Your task to perform on an android device: make emails show in primary in the gmail app Image 0: 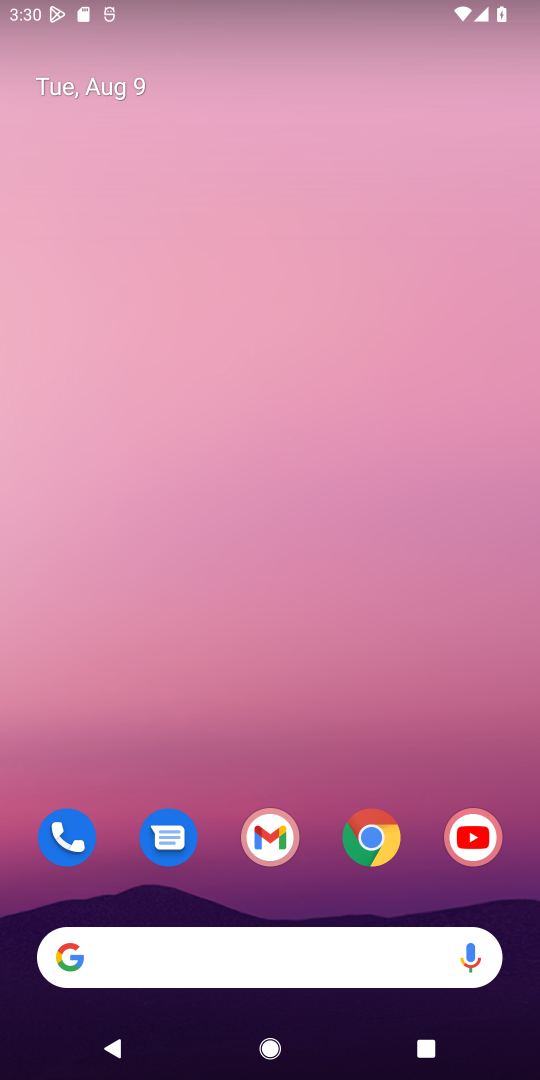
Step 0: drag from (178, 789) to (187, 272)
Your task to perform on an android device: make emails show in primary in the gmail app Image 1: 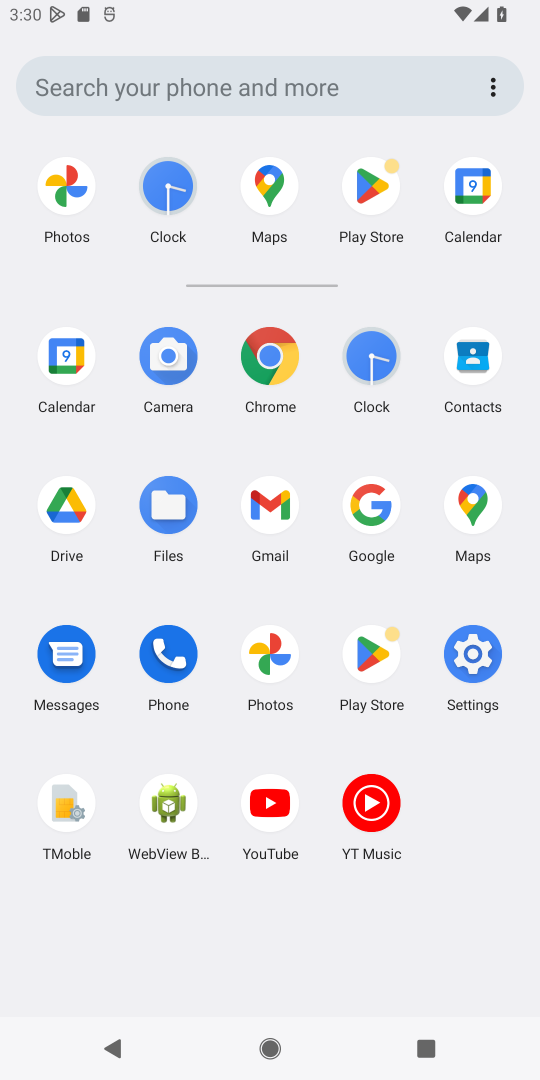
Step 1: click (281, 483)
Your task to perform on an android device: make emails show in primary in the gmail app Image 2: 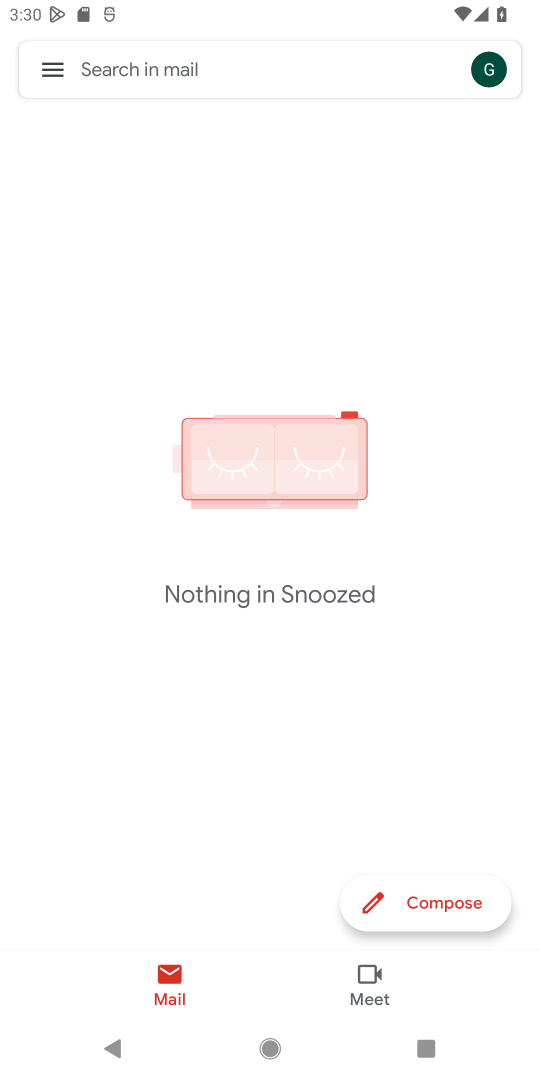
Step 2: click (67, 60)
Your task to perform on an android device: make emails show in primary in the gmail app Image 3: 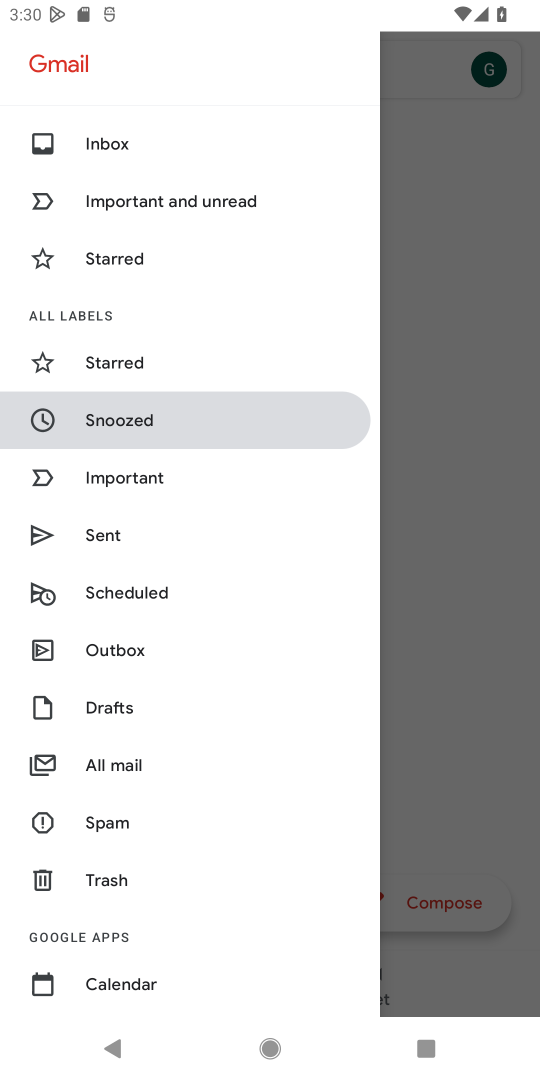
Step 3: drag from (169, 353) to (208, 195)
Your task to perform on an android device: make emails show in primary in the gmail app Image 4: 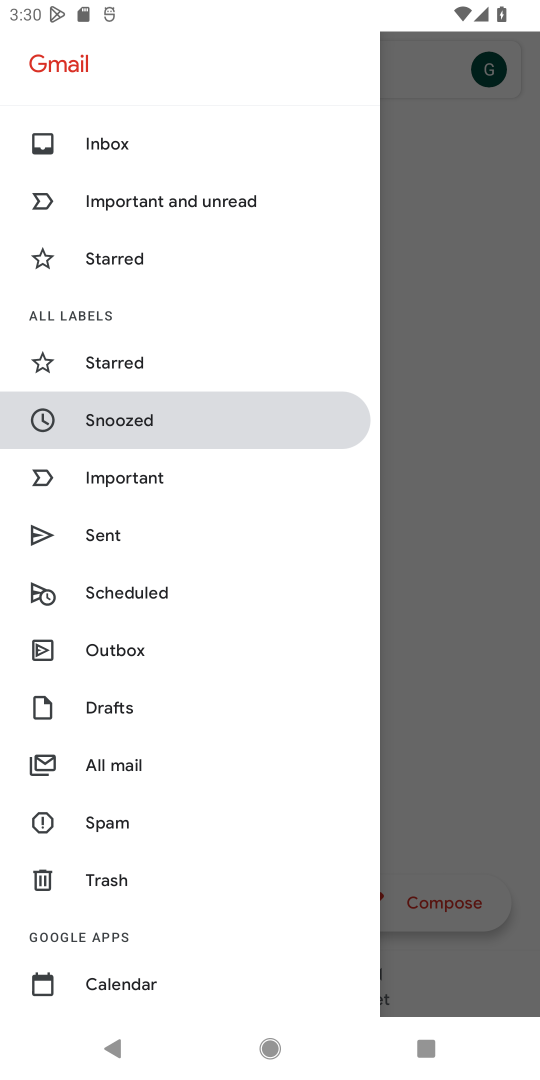
Step 4: drag from (164, 748) to (242, 185)
Your task to perform on an android device: make emails show in primary in the gmail app Image 5: 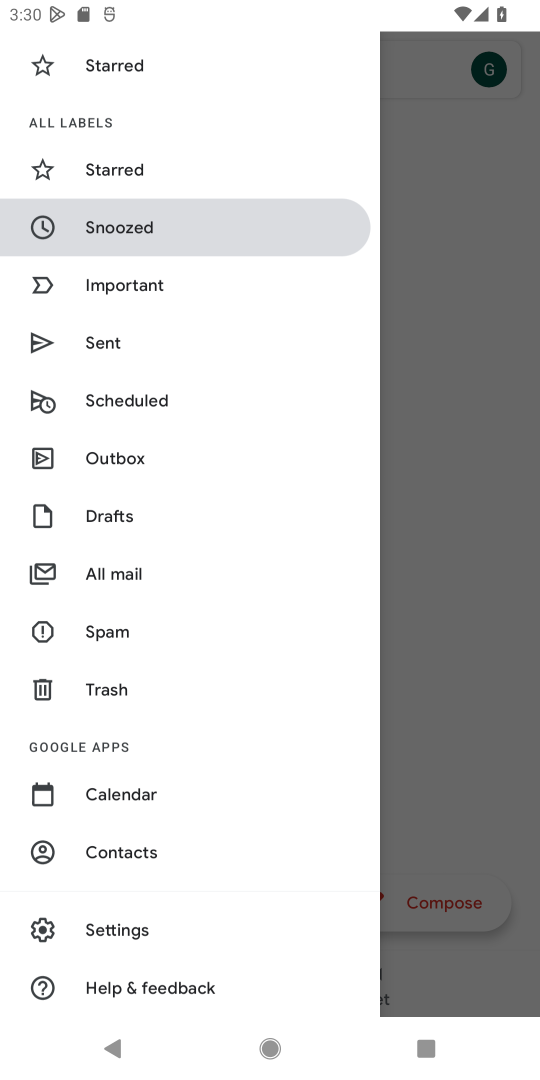
Step 5: click (123, 934)
Your task to perform on an android device: make emails show in primary in the gmail app Image 6: 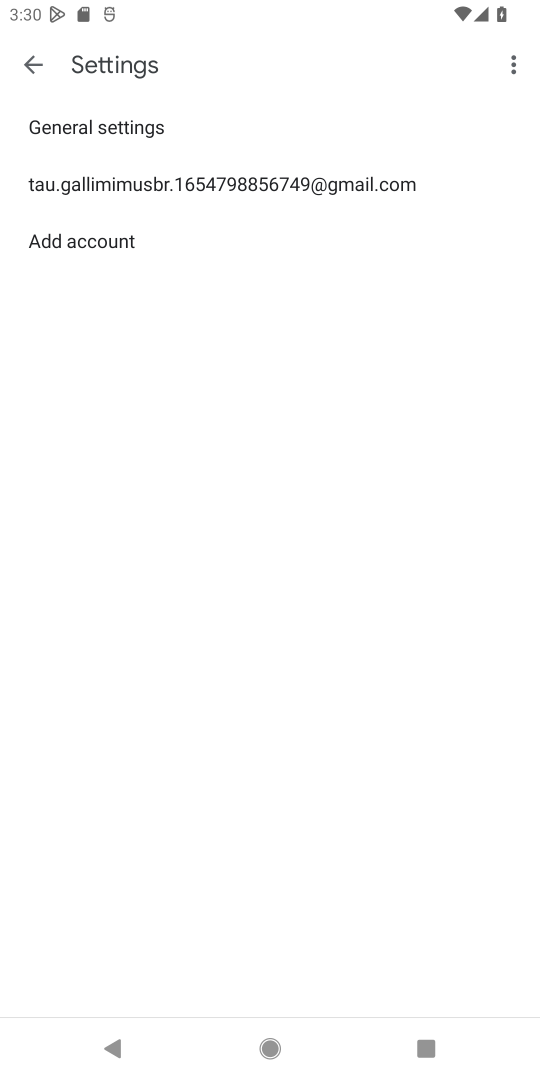
Step 6: click (281, 166)
Your task to perform on an android device: make emails show in primary in the gmail app Image 7: 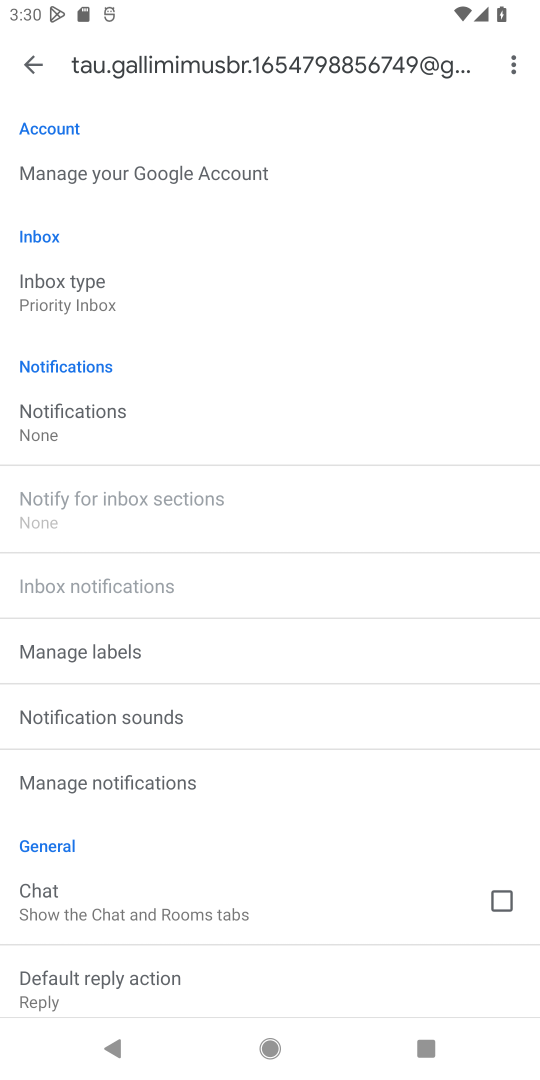
Step 7: task complete